Your task to perform on an android device: uninstall "Pluto TV - Live TV and Movies" Image 0: 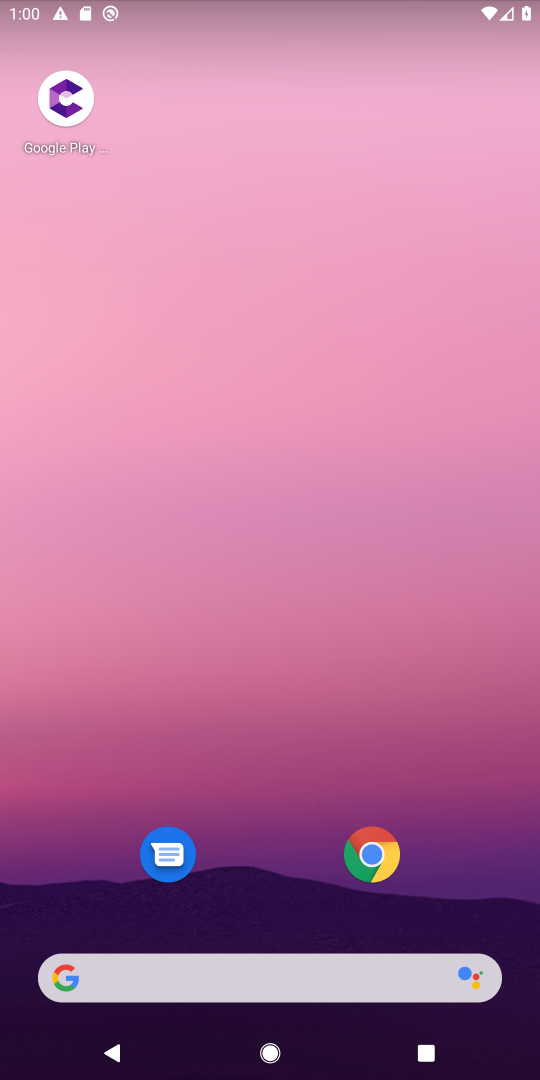
Step 0: drag from (307, 531) to (307, 124)
Your task to perform on an android device: uninstall "Pluto TV - Live TV and Movies" Image 1: 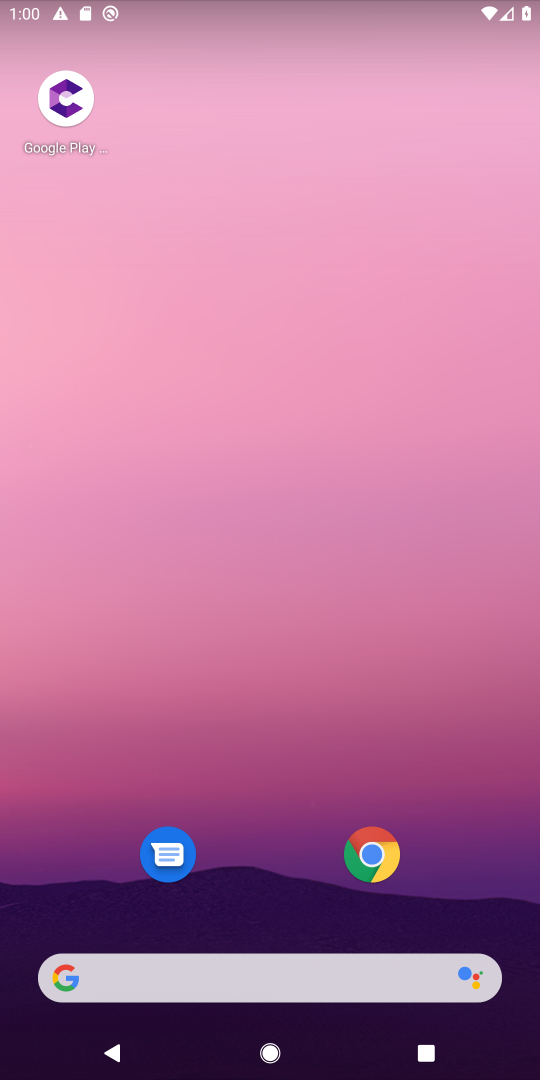
Step 1: drag from (294, 1069) to (296, 130)
Your task to perform on an android device: uninstall "Pluto TV - Live TV and Movies" Image 2: 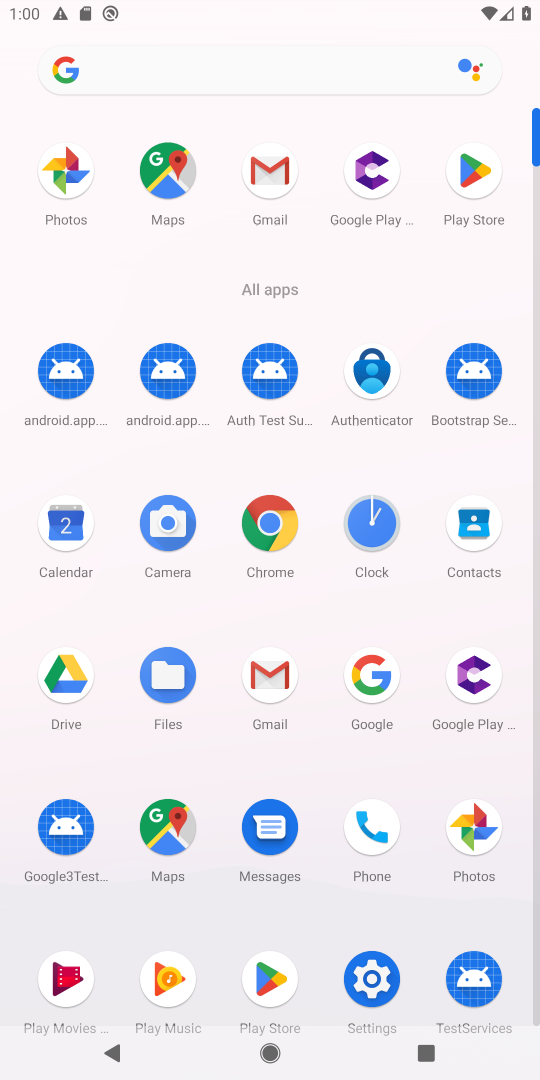
Step 2: click (271, 976)
Your task to perform on an android device: uninstall "Pluto TV - Live TV and Movies" Image 3: 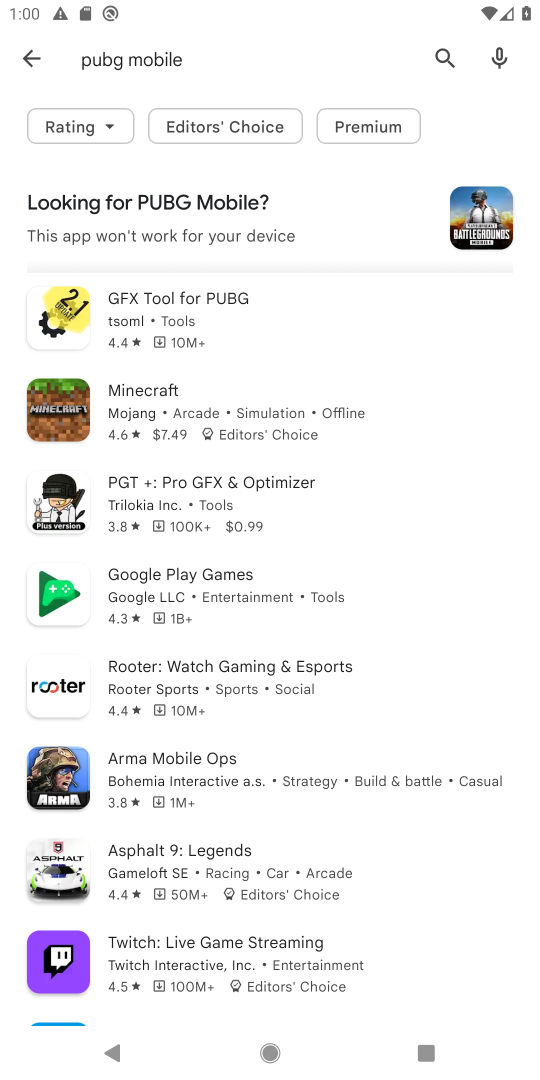
Step 3: click (443, 57)
Your task to perform on an android device: uninstall "Pluto TV - Live TV and Movies" Image 4: 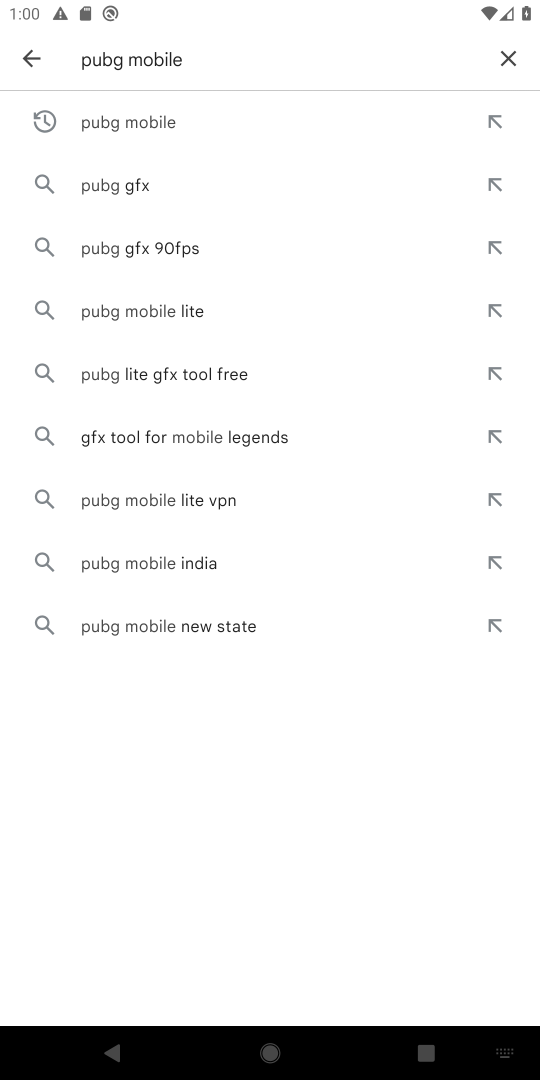
Step 4: click (509, 49)
Your task to perform on an android device: uninstall "Pluto TV - Live TV and Movies" Image 5: 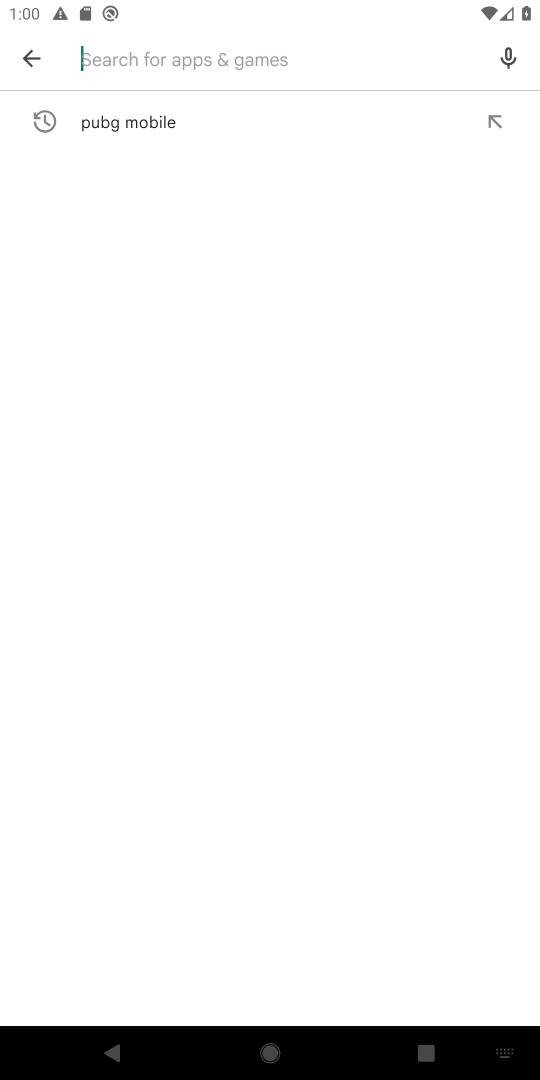
Step 5: type "Pluto TV - Live TV and Movies"
Your task to perform on an android device: uninstall "Pluto TV - Live TV and Movies" Image 6: 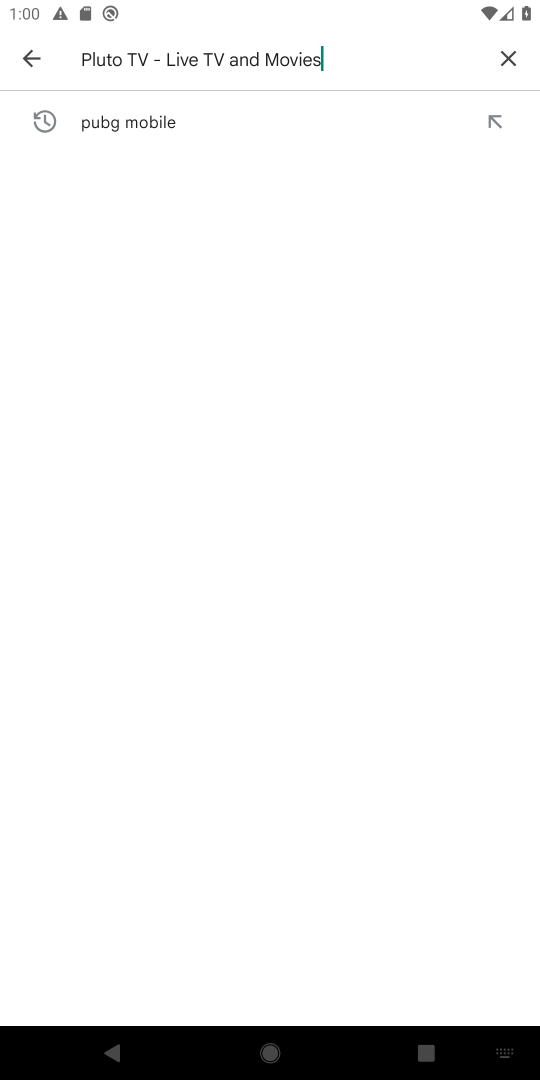
Step 6: type ""
Your task to perform on an android device: uninstall "Pluto TV - Live TV and Movies" Image 7: 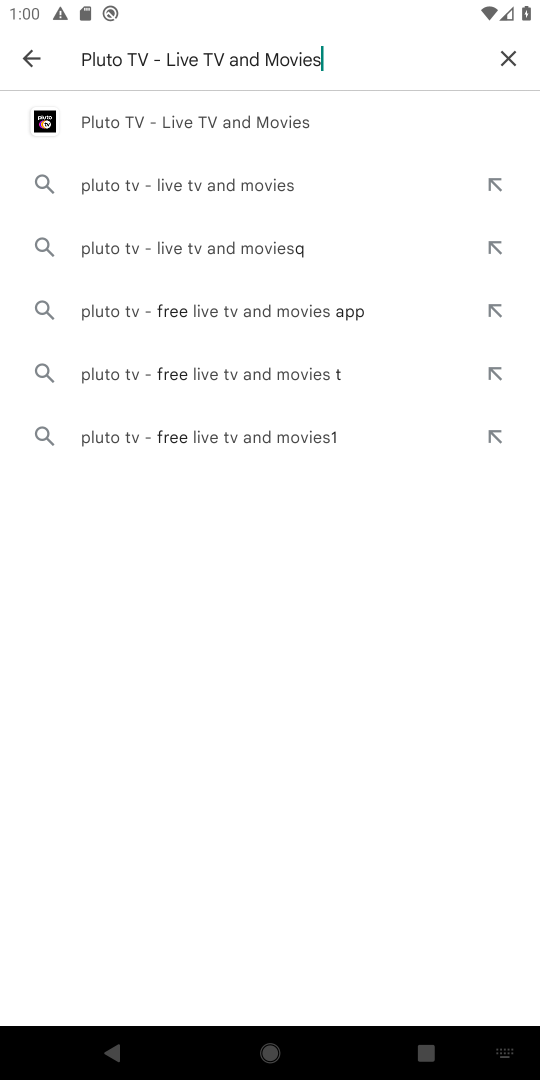
Step 7: click (199, 119)
Your task to perform on an android device: uninstall "Pluto TV - Live TV and Movies" Image 8: 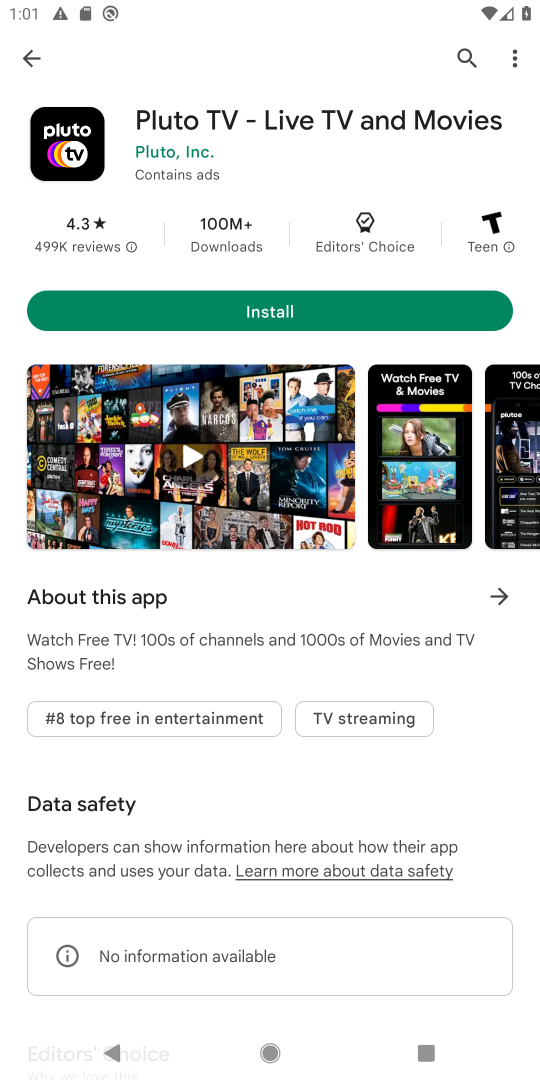
Step 8: task complete